Your task to perform on an android device: Add "amazon basics triple a" to the cart on amazon.com Image 0: 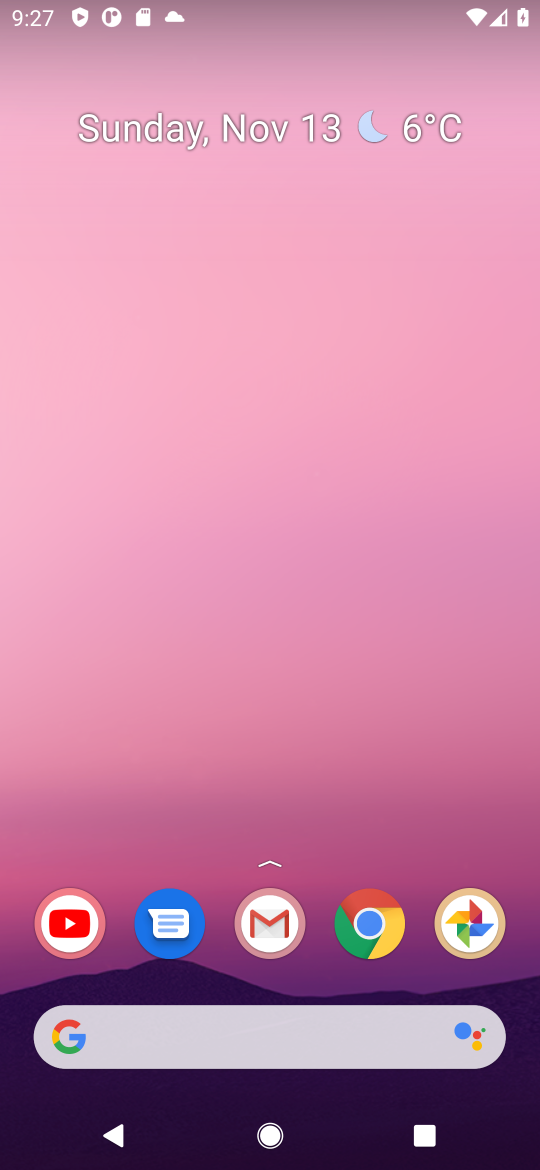
Step 0: click (454, 655)
Your task to perform on an android device: Add "amazon basics triple a" to the cart on amazon.com Image 1: 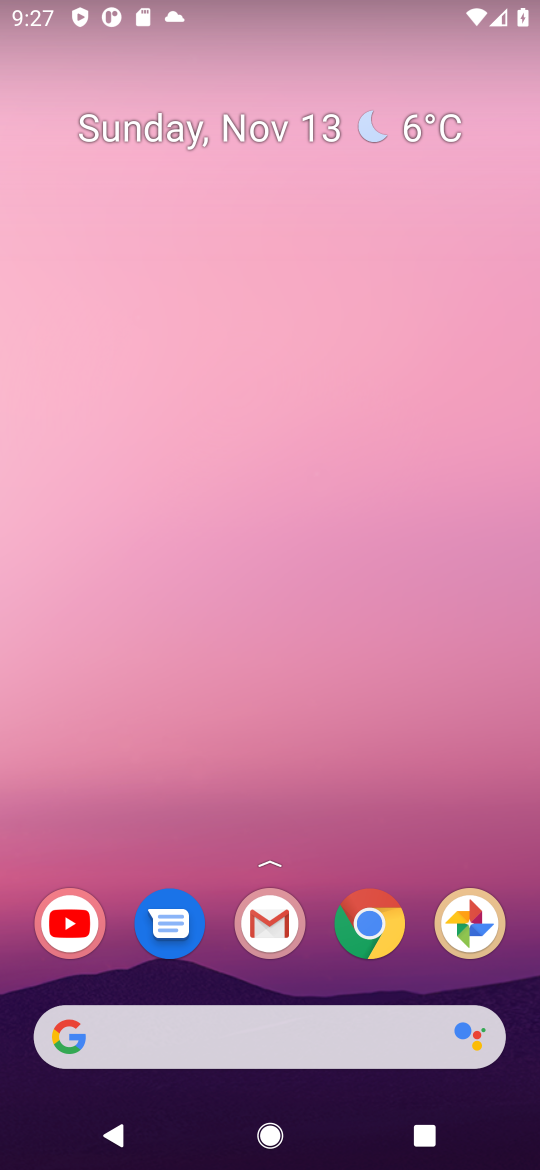
Step 1: click (414, 712)
Your task to perform on an android device: Add "amazon basics triple a" to the cart on amazon.com Image 2: 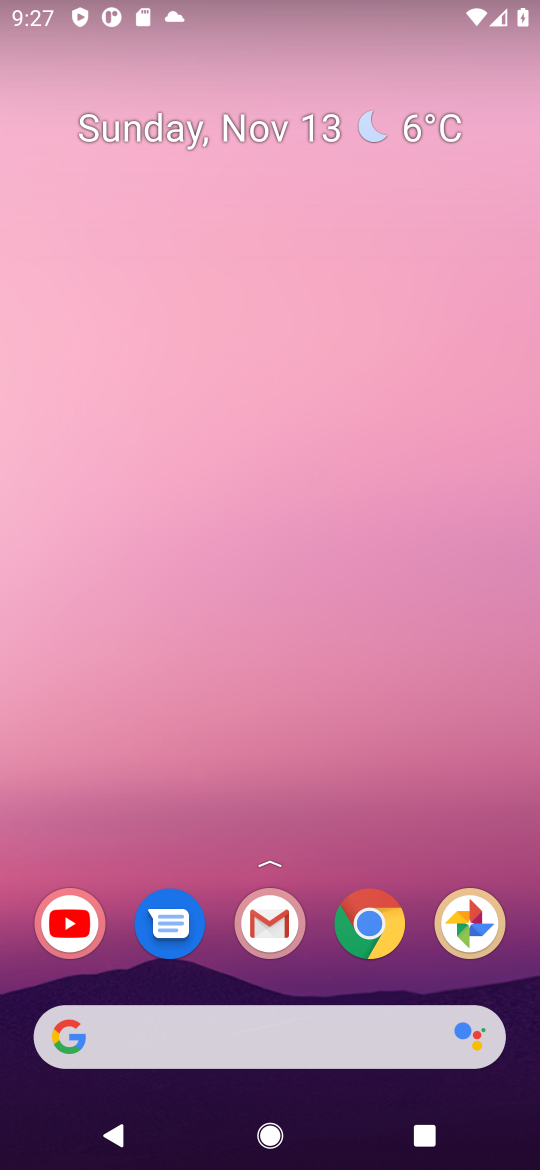
Step 2: click (368, 939)
Your task to perform on an android device: Add "amazon basics triple a" to the cart on amazon.com Image 3: 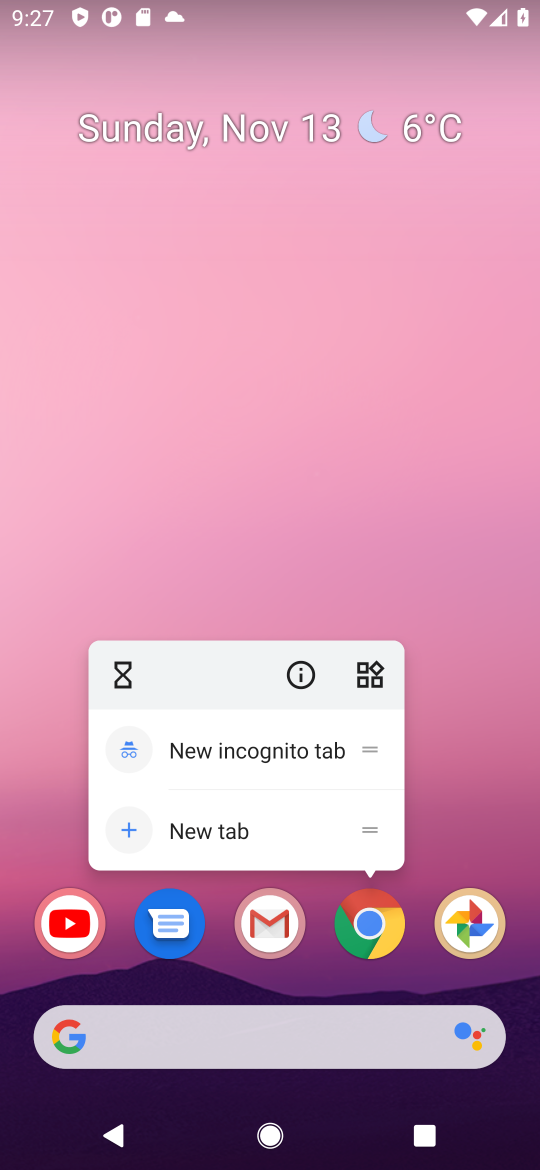
Step 3: click (368, 939)
Your task to perform on an android device: Add "amazon basics triple a" to the cart on amazon.com Image 4: 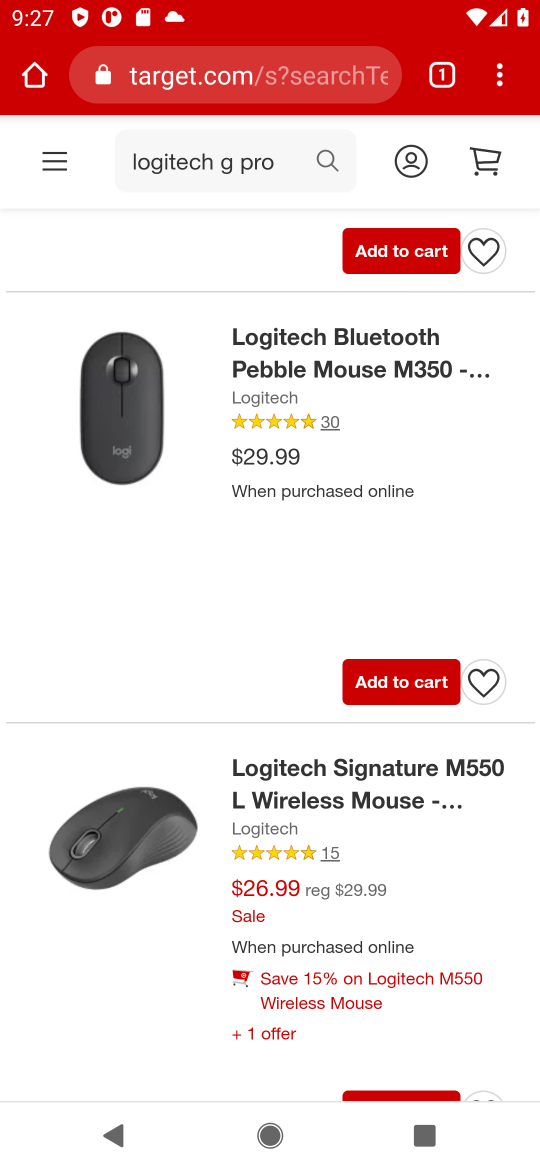
Step 4: click (312, 81)
Your task to perform on an android device: Add "amazon basics triple a" to the cart on amazon.com Image 5: 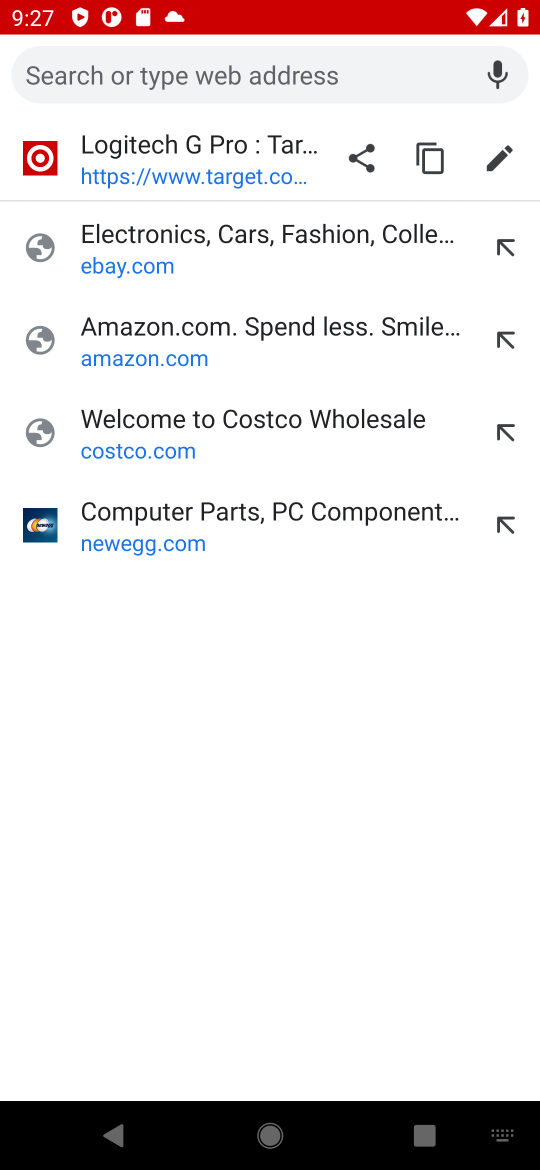
Step 5: click (270, 330)
Your task to perform on an android device: Add "amazon basics triple a" to the cart on amazon.com Image 6: 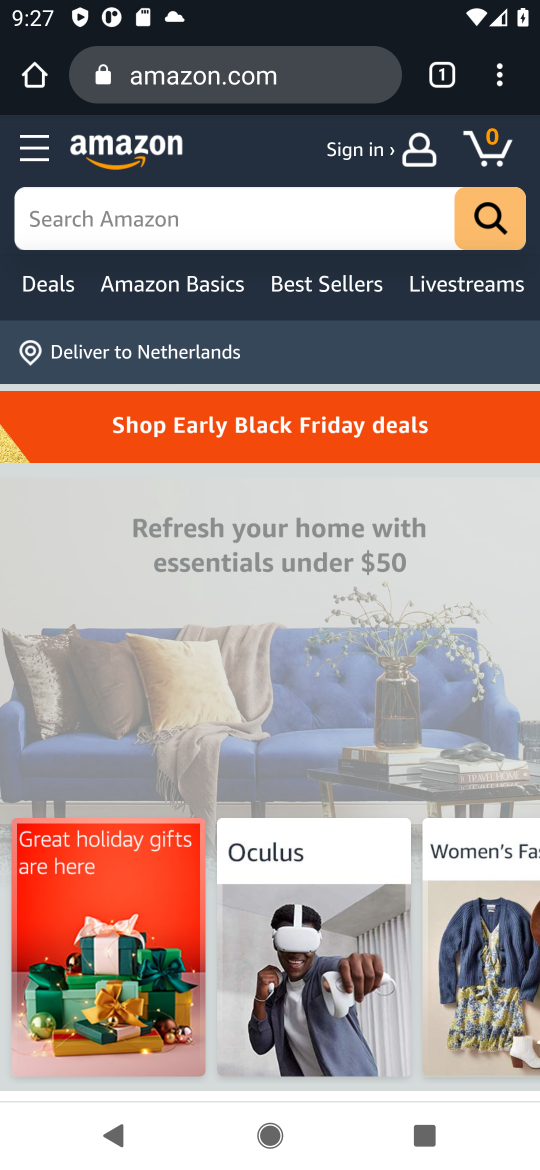
Step 6: click (393, 215)
Your task to perform on an android device: Add "amazon basics triple a" to the cart on amazon.com Image 7: 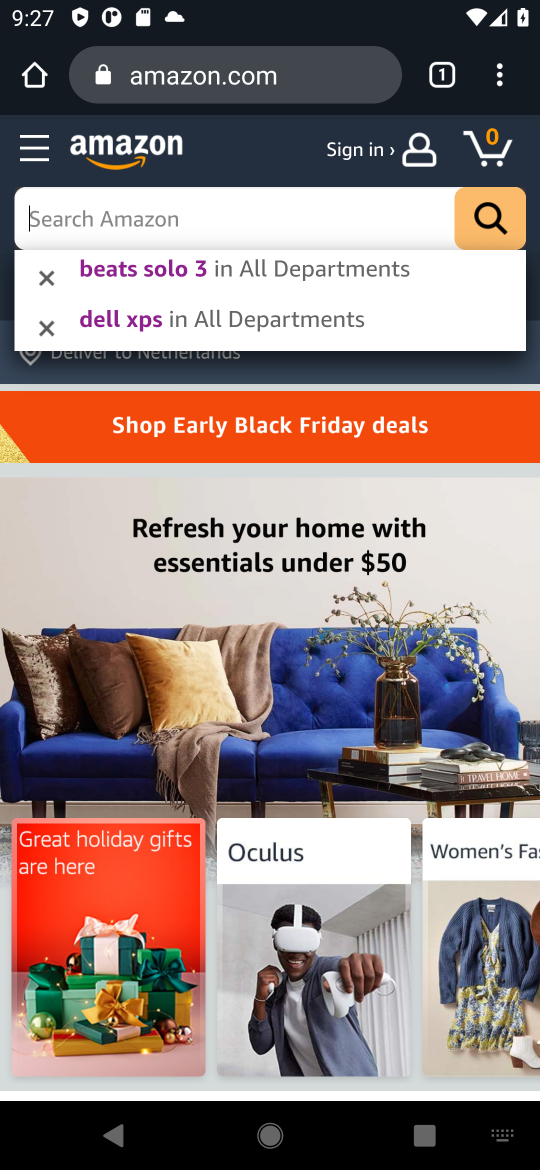
Step 7: press enter
Your task to perform on an android device: Add "amazon basics triple a" to the cart on amazon.com Image 8: 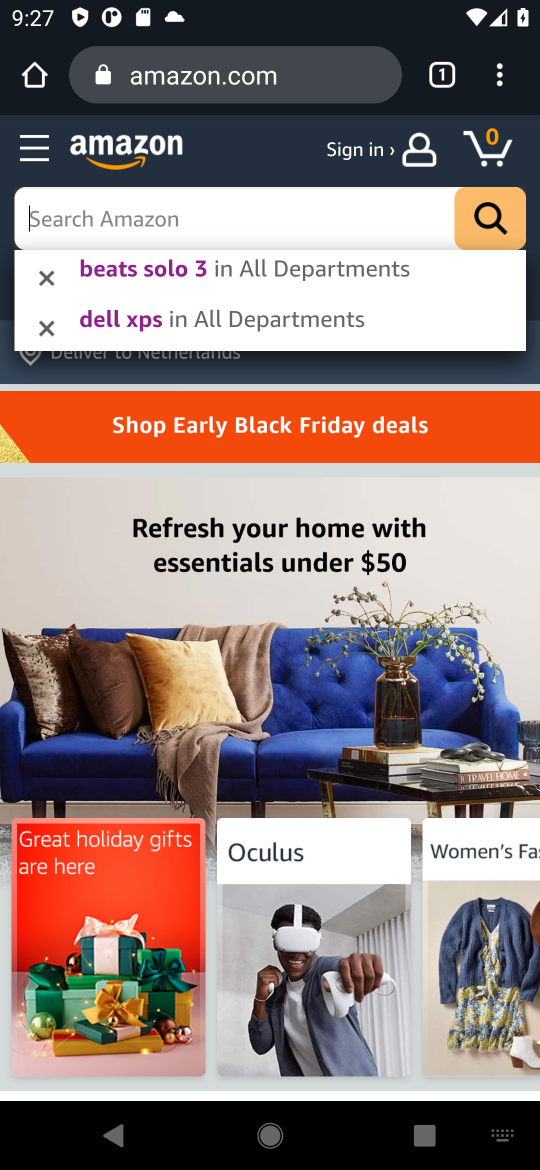
Step 8: type "amazon basics triple a"
Your task to perform on an android device: Add "amazon basics triple a" to the cart on amazon.com Image 9: 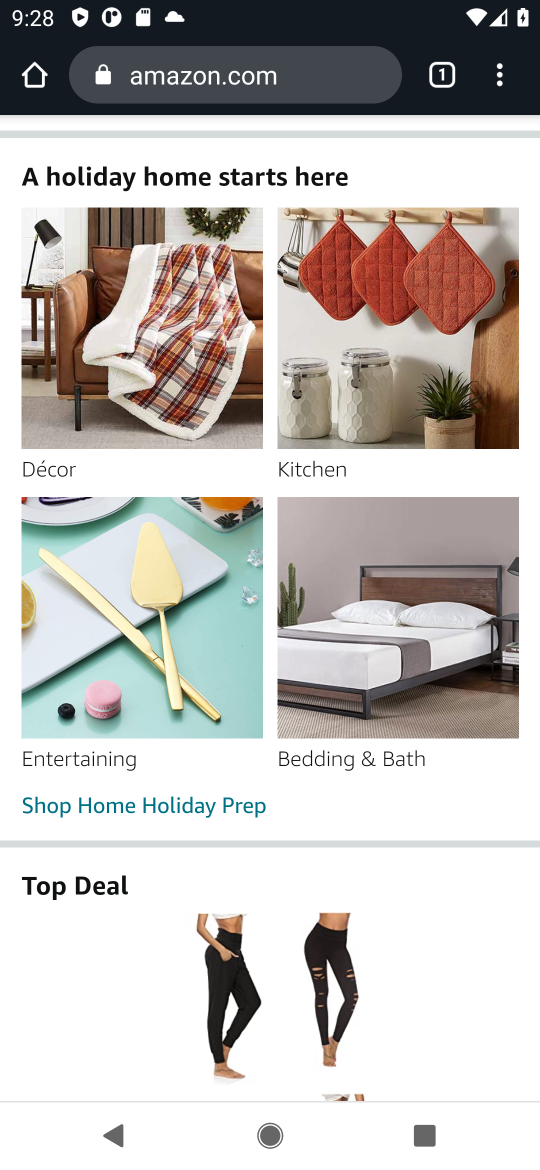
Step 9: drag from (355, 402) to (361, 959)
Your task to perform on an android device: Add "amazon basics triple a" to the cart on amazon.com Image 10: 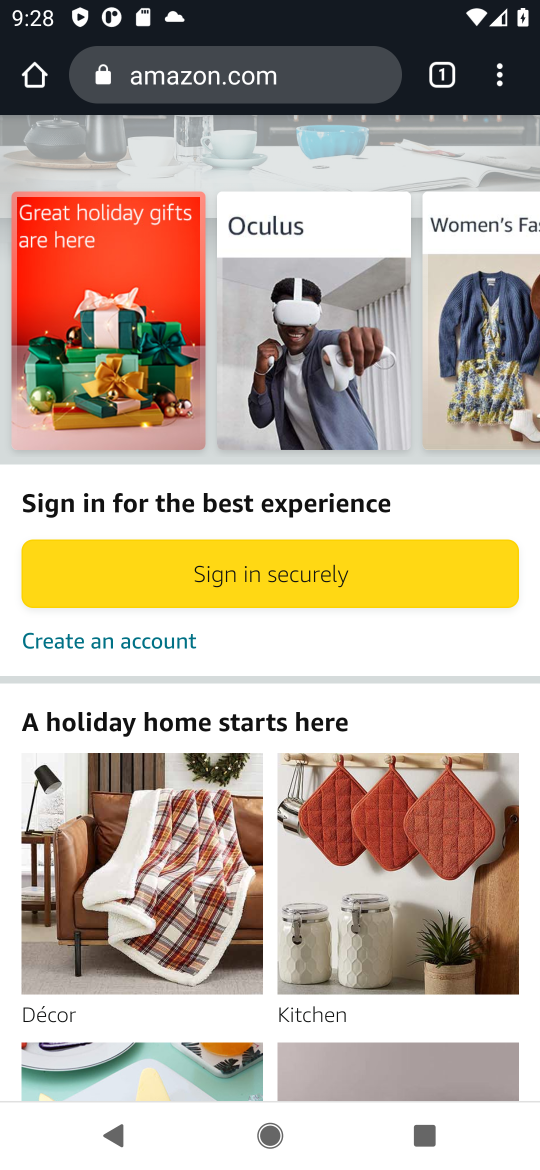
Step 10: click (320, 563)
Your task to perform on an android device: Add "amazon basics triple a" to the cart on amazon.com Image 11: 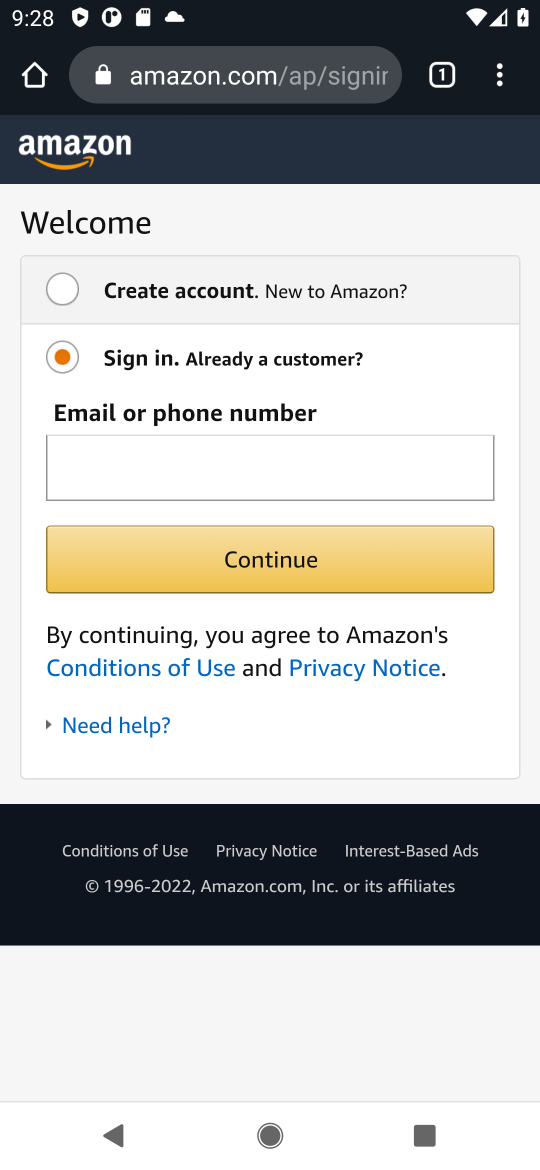
Step 11: press back button
Your task to perform on an android device: Add "amazon basics triple a" to the cart on amazon.com Image 12: 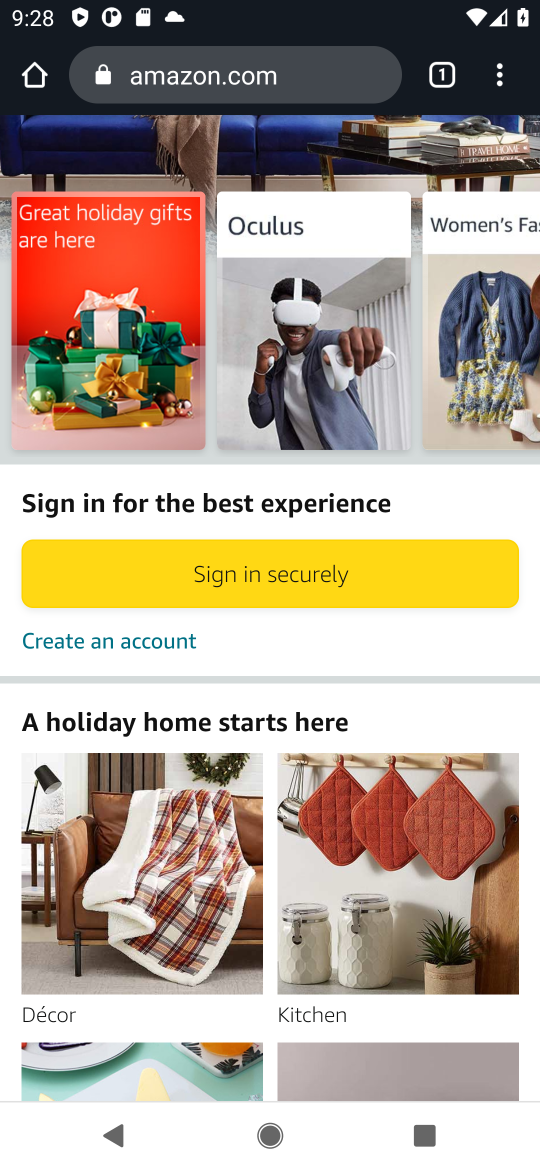
Step 12: drag from (312, 256) to (349, 824)
Your task to perform on an android device: Add "amazon basics triple a" to the cart on amazon.com Image 13: 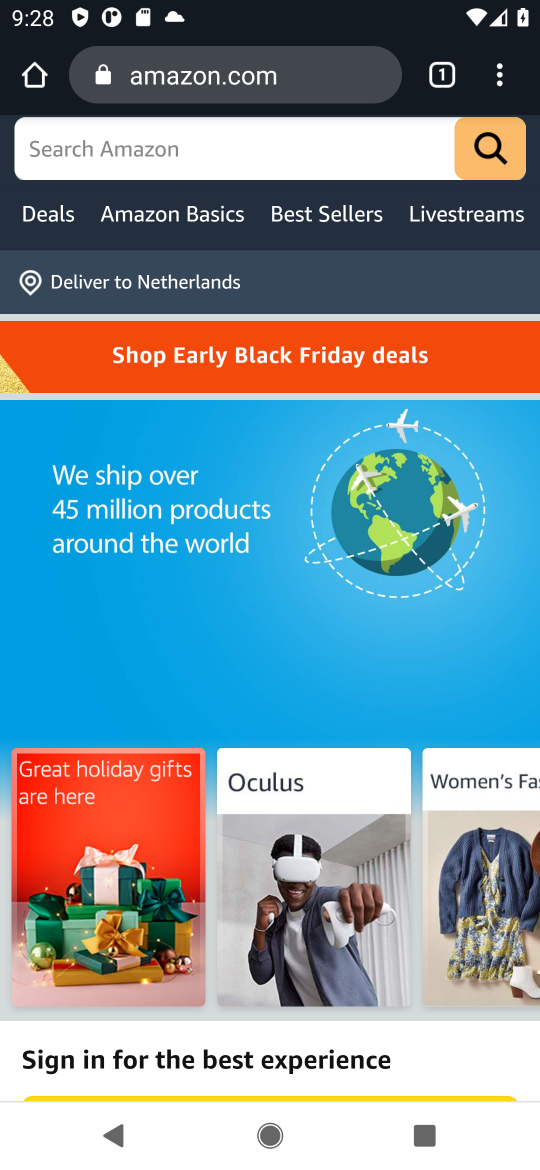
Step 13: drag from (399, 532) to (482, 907)
Your task to perform on an android device: Add "amazon basics triple a" to the cart on amazon.com Image 14: 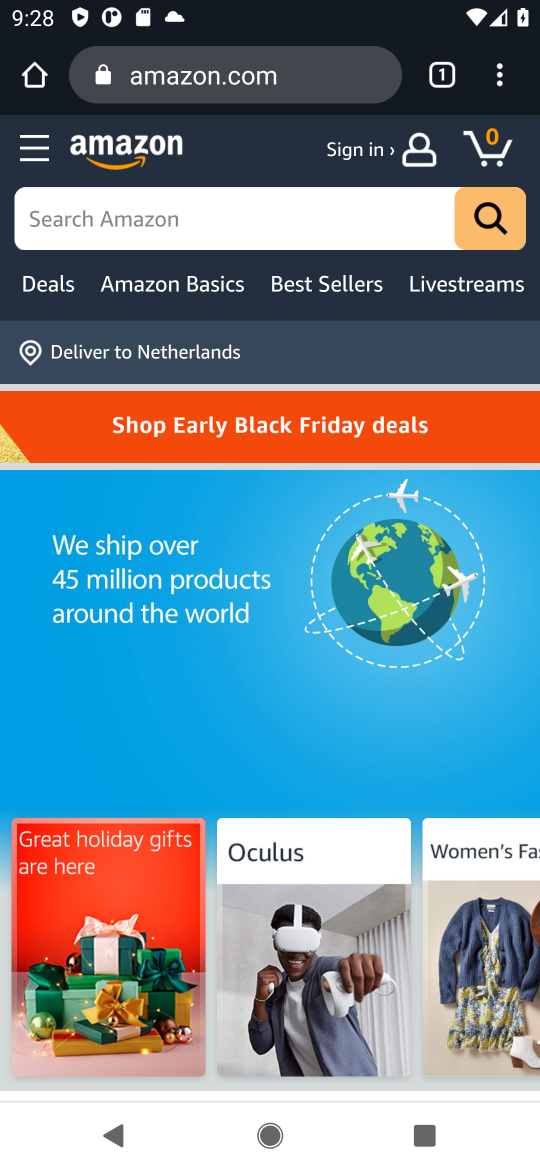
Step 14: click (309, 222)
Your task to perform on an android device: Add "amazon basics triple a" to the cart on amazon.com Image 15: 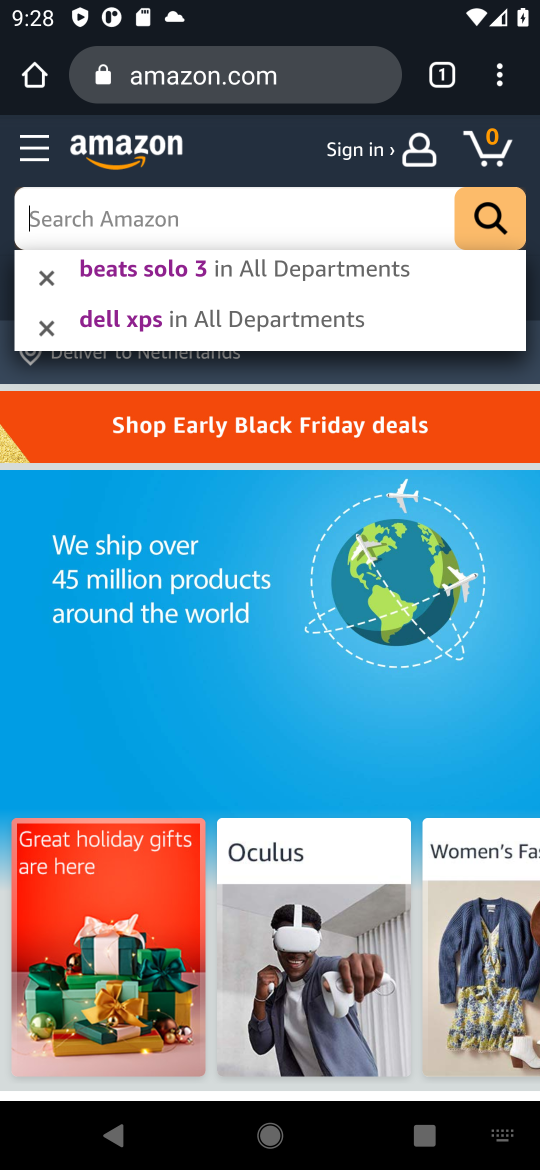
Step 15: type "amazon basics triple a"
Your task to perform on an android device: Add "amazon basics triple a" to the cart on amazon.com Image 16: 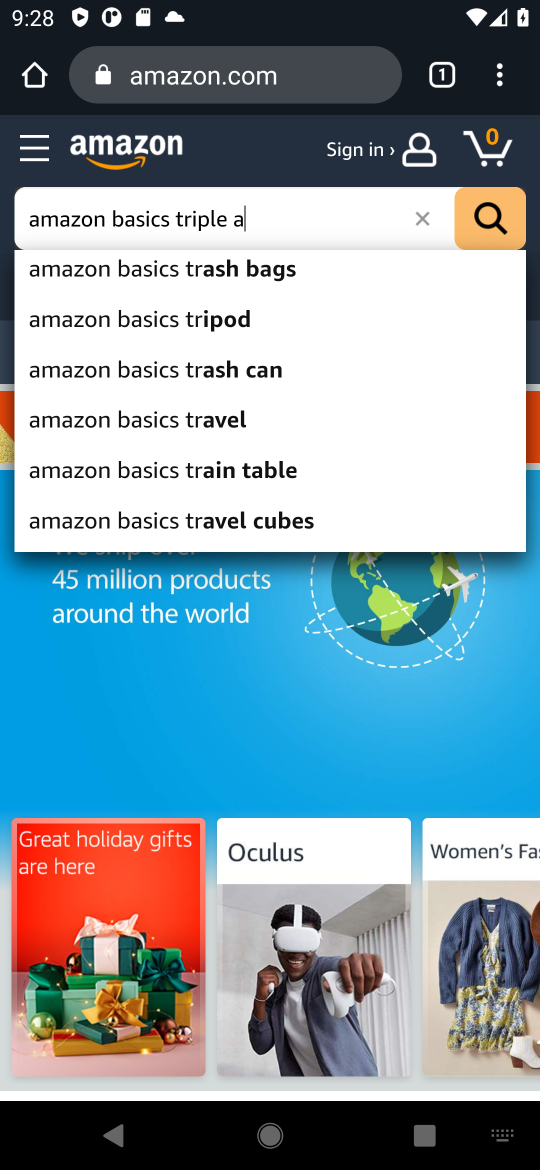
Step 16: press enter
Your task to perform on an android device: Add "amazon basics triple a" to the cart on amazon.com Image 17: 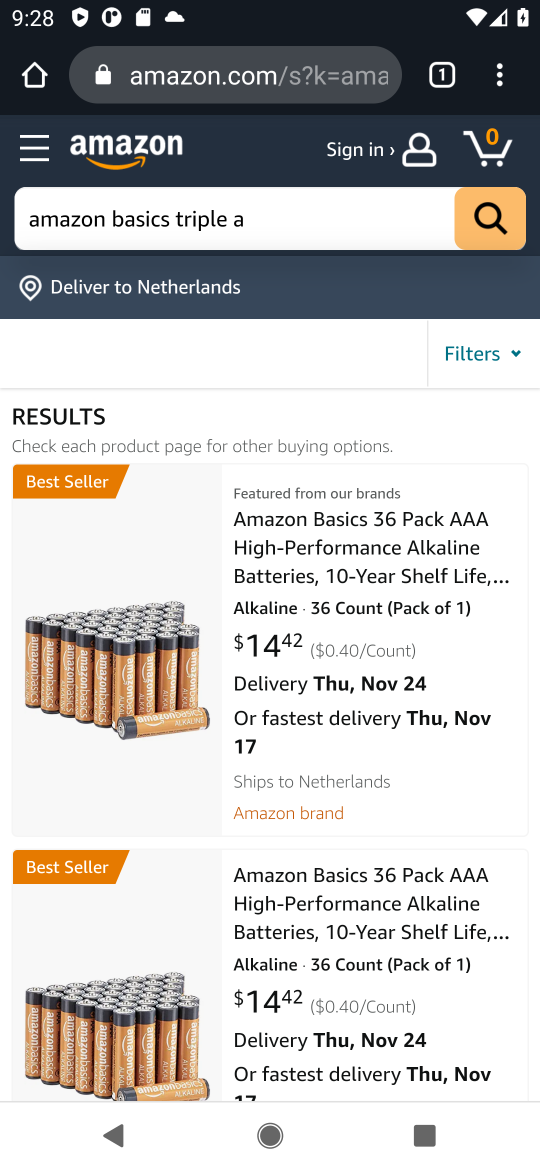
Step 17: click (148, 633)
Your task to perform on an android device: Add "amazon basics triple a" to the cart on amazon.com Image 18: 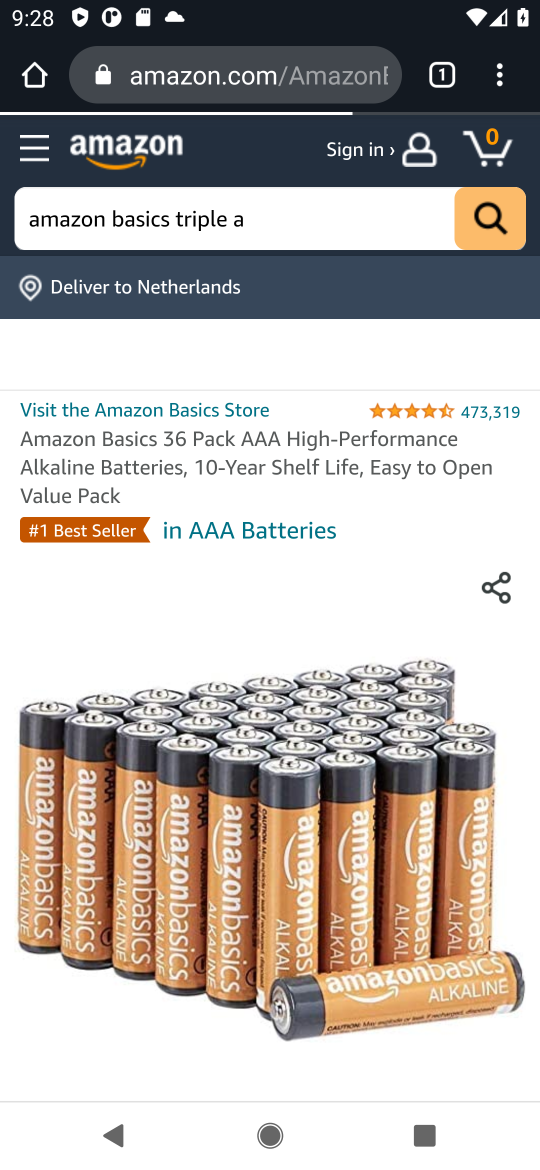
Step 18: drag from (381, 774) to (425, 329)
Your task to perform on an android device: Add "amazon basics triple a" to the cart on amazon.com Image 19: 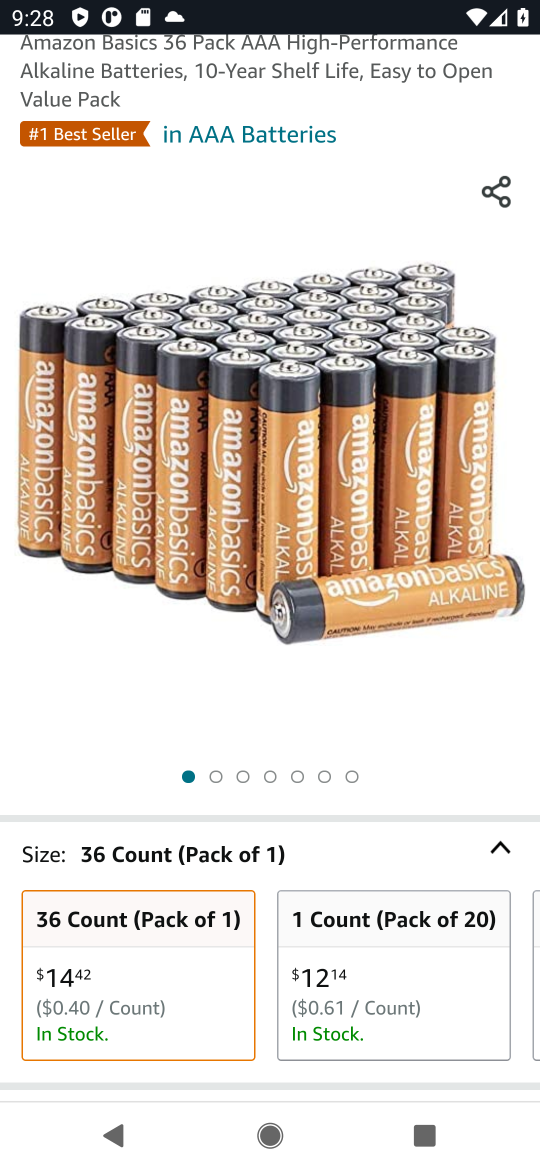
Step 19: drag from (335, 680) to (397, 321)
Your task to perform on an android device: Add "amazon basics triple a" to the cart on amazon.com Image 20: 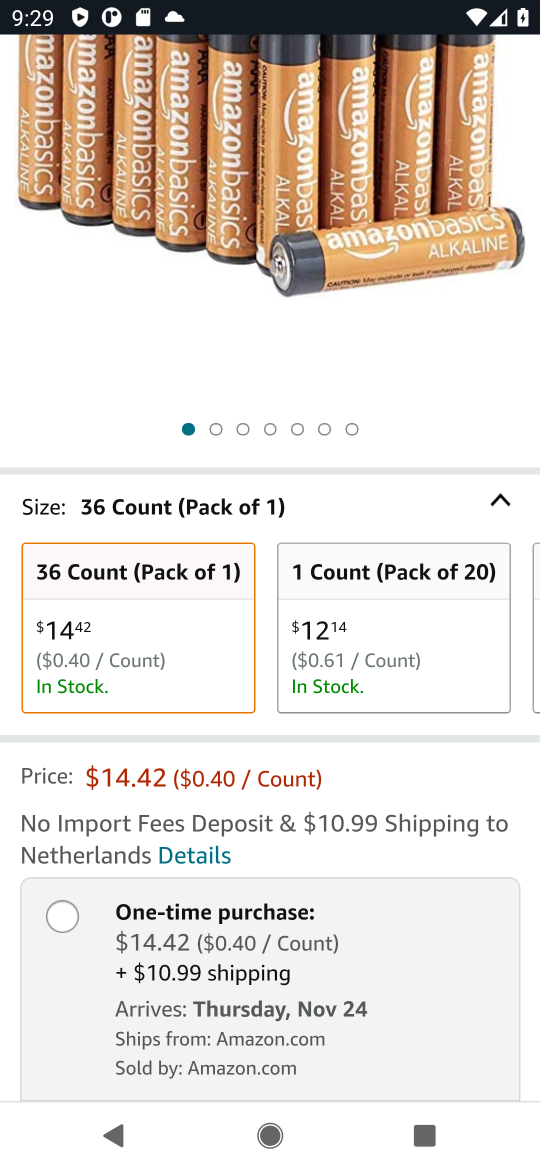
Step 20: drag from (398, 865) to (505, 439)
Your task to perform on an android device: Add "amazon basics triple a" to the cart on amazon.com Image 21: 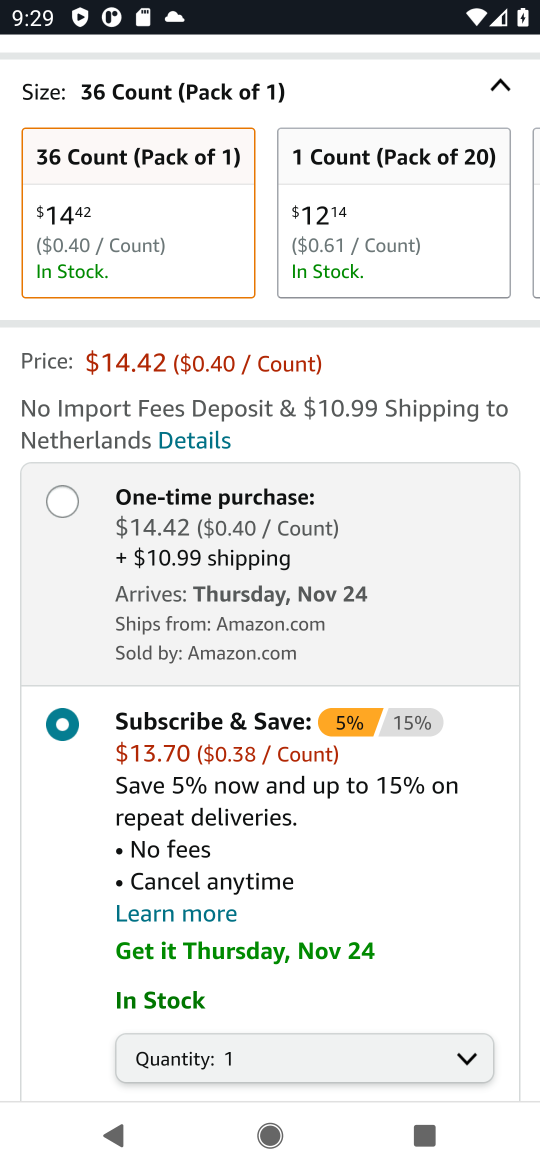
Step 21: drag from (425, 878) to (432, 547)
Your task to perform on an android device: Add "amazon basics triple a" to the cart on amazon.com Image 22: 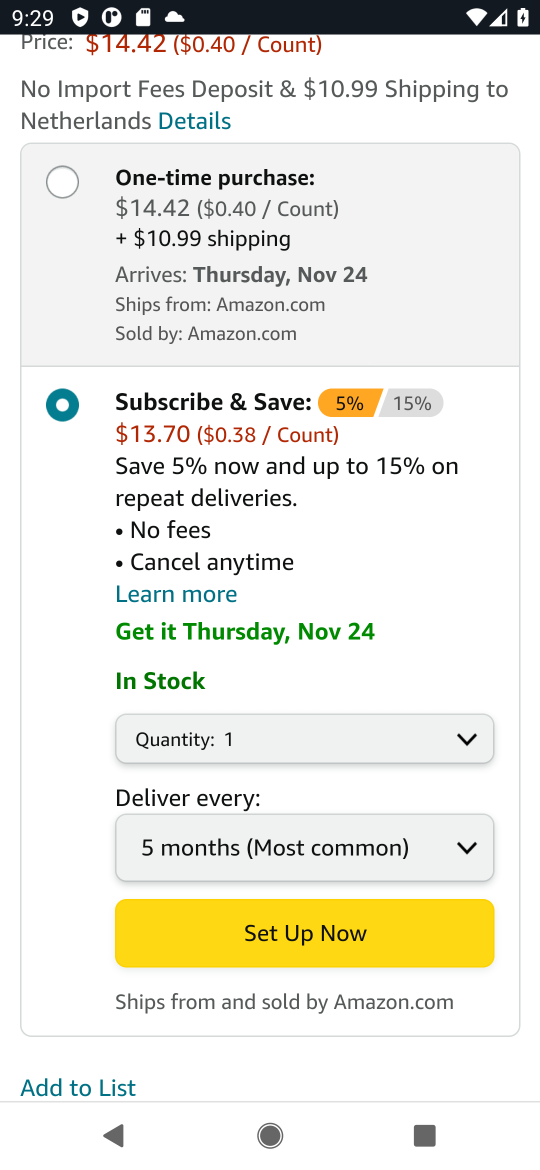
Step 22: press back button
Your task to perform on an android device: Add "amazon basics triple a" to the cart on amazon.com Image 23: 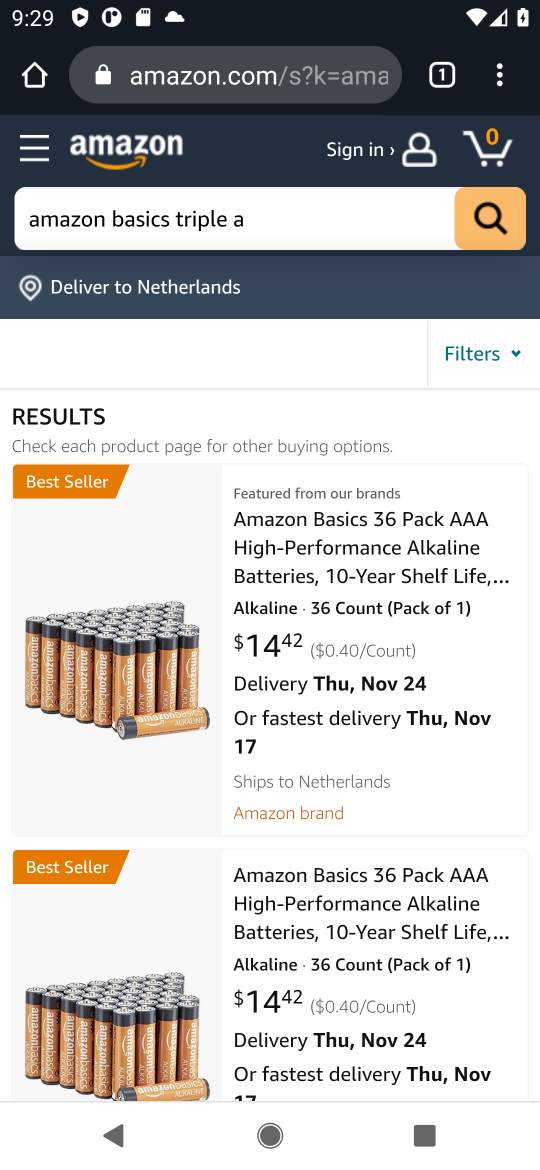
Step 23: click (89, 954)
Your task to perform on an android device: Add "amazon basics triple a" to the cart on amazon.com Image 24: 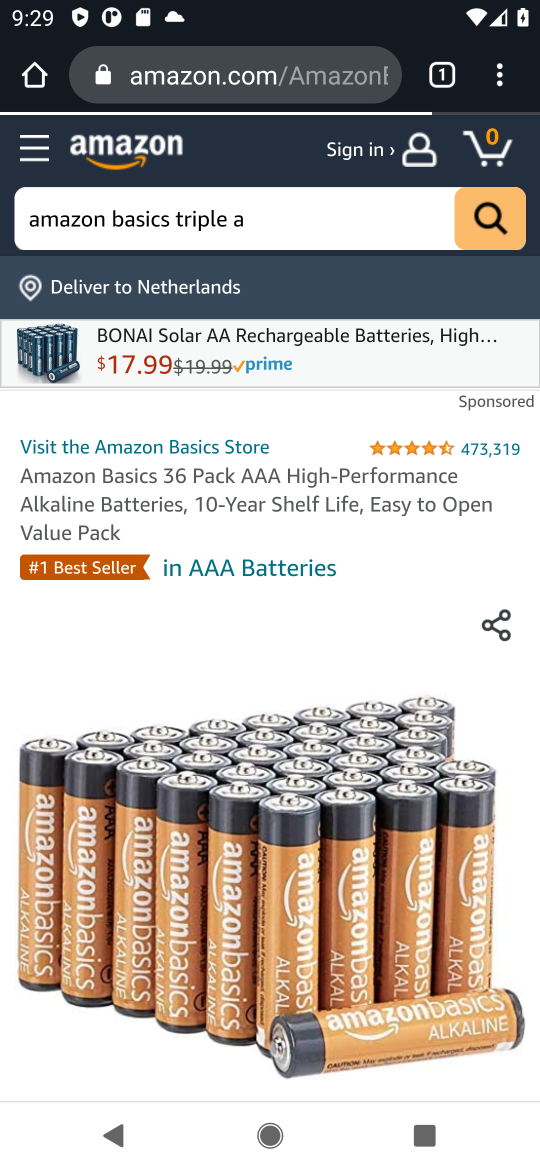
Step 24: drag from (352, 875) to (538, 279)
Your task to perform on an android device: Add "amazon basics triple a" to the cart on amazon.com Image 25: 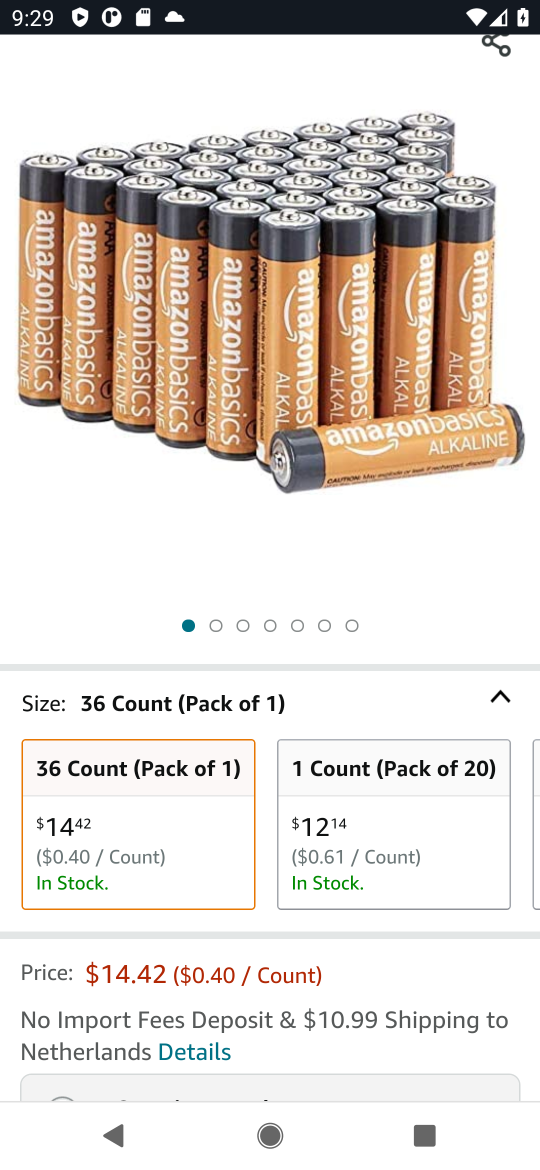
Step 25: drag from (387, 892) to (468, 240)
Your task to perform on an android device: Add "amazon basics triple a" to the cart on amazon.com Image 26: 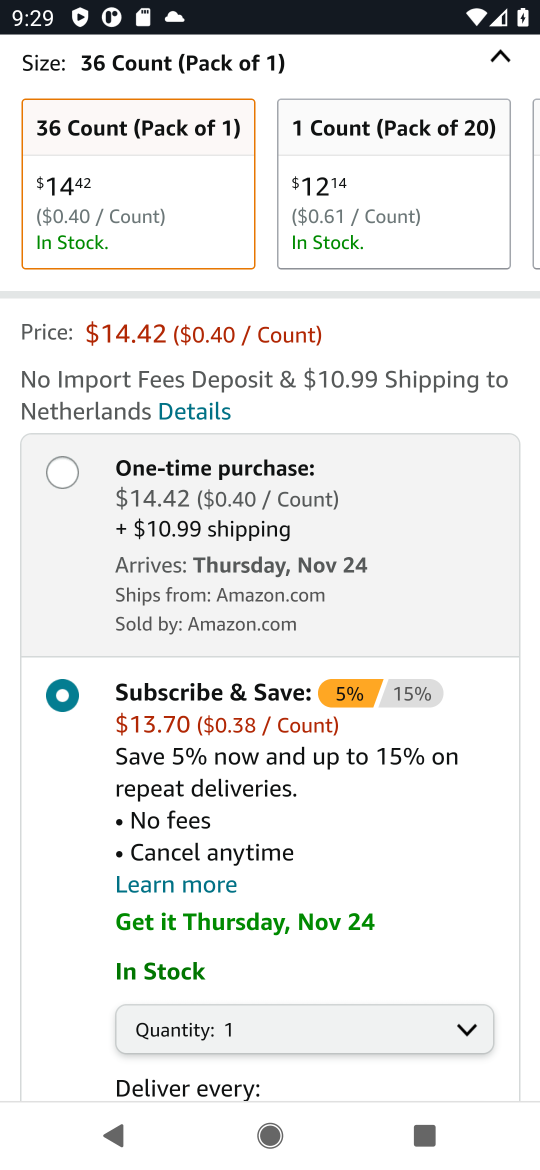
Step 26: drag from (424, 799) to (529, 281)
Your task to perform on an android device: Add "amazon basics triple a" to the cart on amazon.com Image 27: 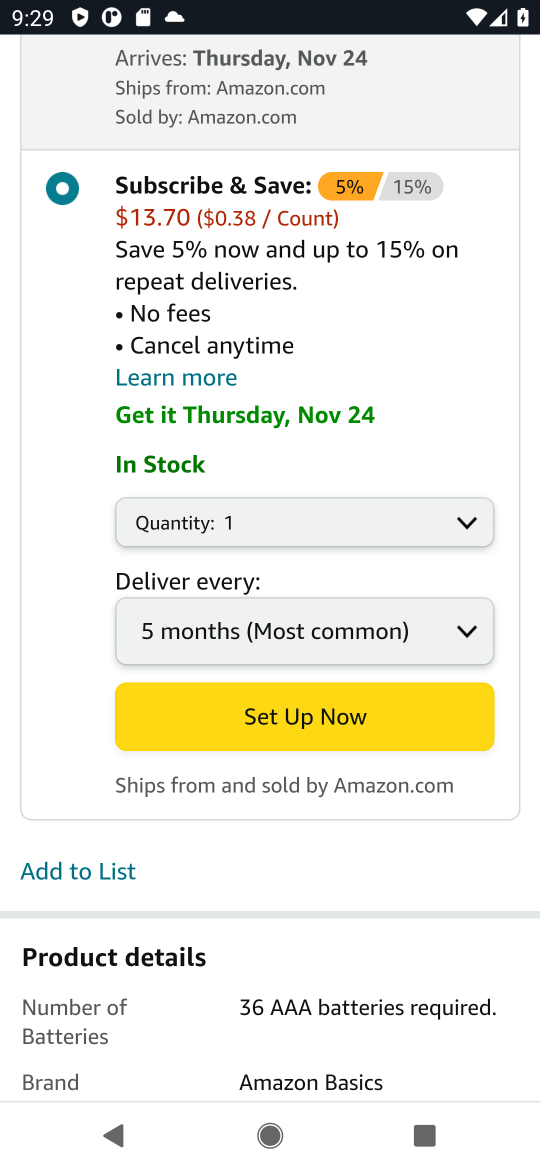
Step 27: press back button
Your task to perform on an android device: Add "amazon basics triple a" to the cart on amazon.com Image 28: 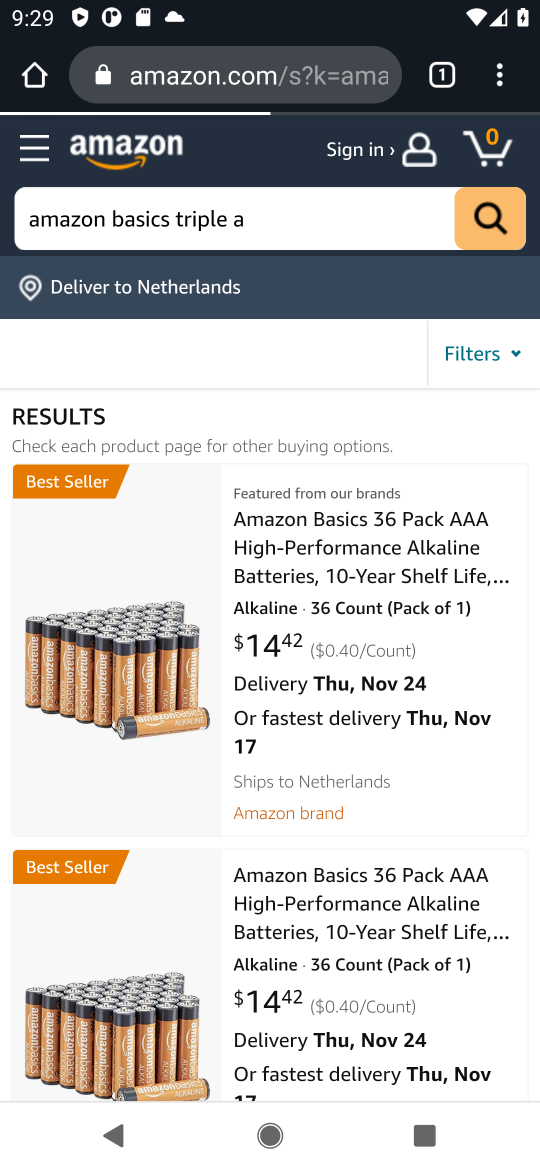
Step 28: drag from (306, 917) to (403, 299)
Your task to perform on an android device: Add "amazon basics triple a" to the cart on amazon.com Image 29: 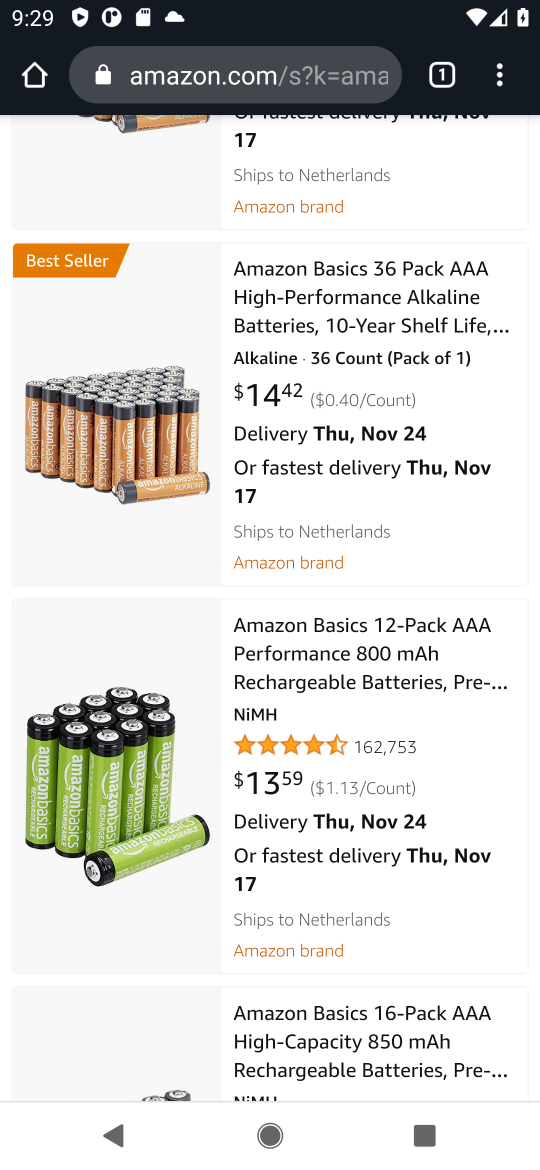
Step 29: click (116, 690)
Your task to perform on an android device: Add "amazon basics triple a" to the cart on amazon.com Image 30: 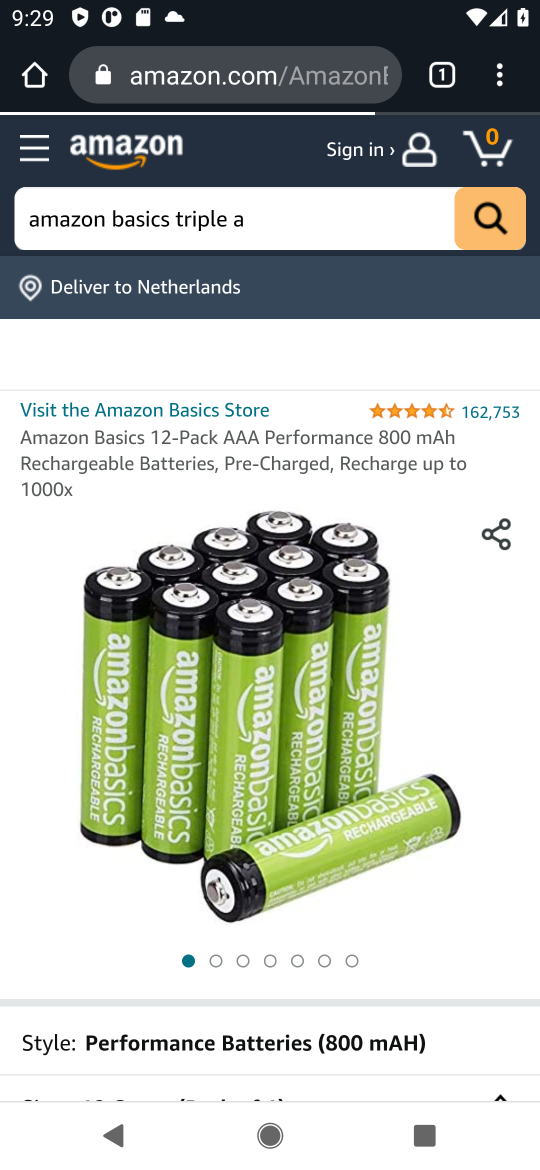
Step 30: drag from (491, 741) to (493, 486)
Your task to perform on an android device: Add "amazon basics triple a" to the cart on amazon.com Image 31: 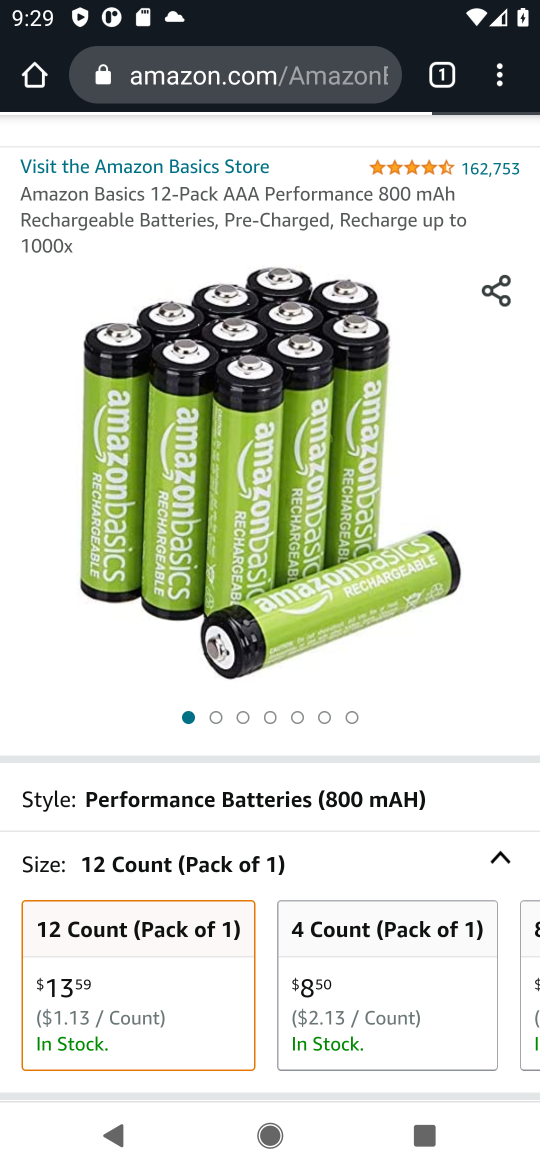
Step 31: drag from (464, 781) to (451, 512)
Your task to perform on an android device: Add "amazon basics triple a" to the cart on amazon.com Image 32: 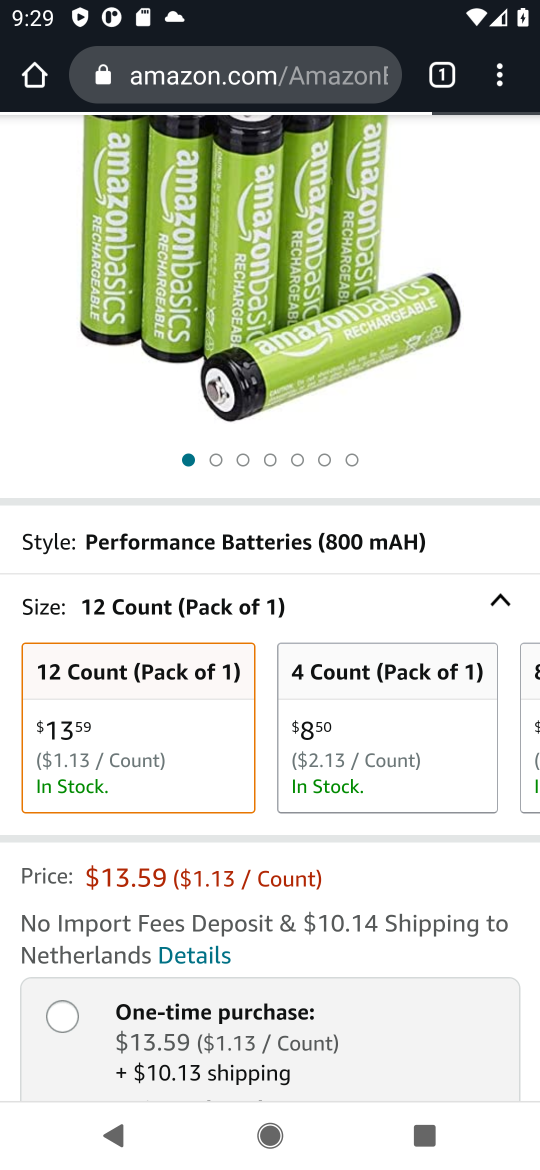
Step 32: drag from (381, 991) to (457, 426)
Your task to perform on an android device: Add "amazon basics triple a" to the cart on amazon.com Image 33: 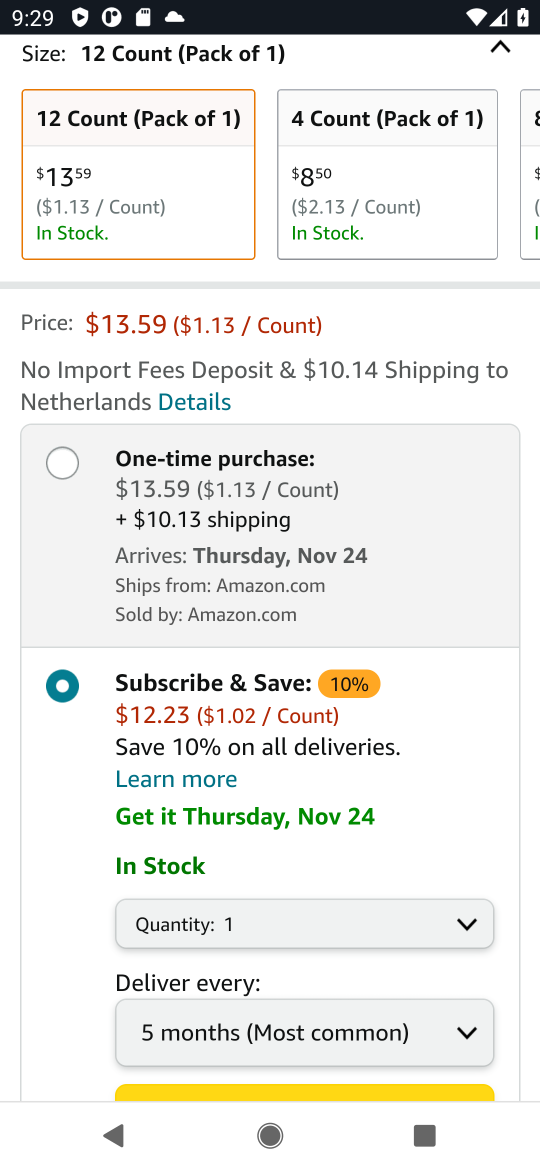
Step 33: drag from (443, 767) to (501, 292)
Your task to perform on an android device: Add "amazon basics triple a" to the cart on amazon.com Image 34: 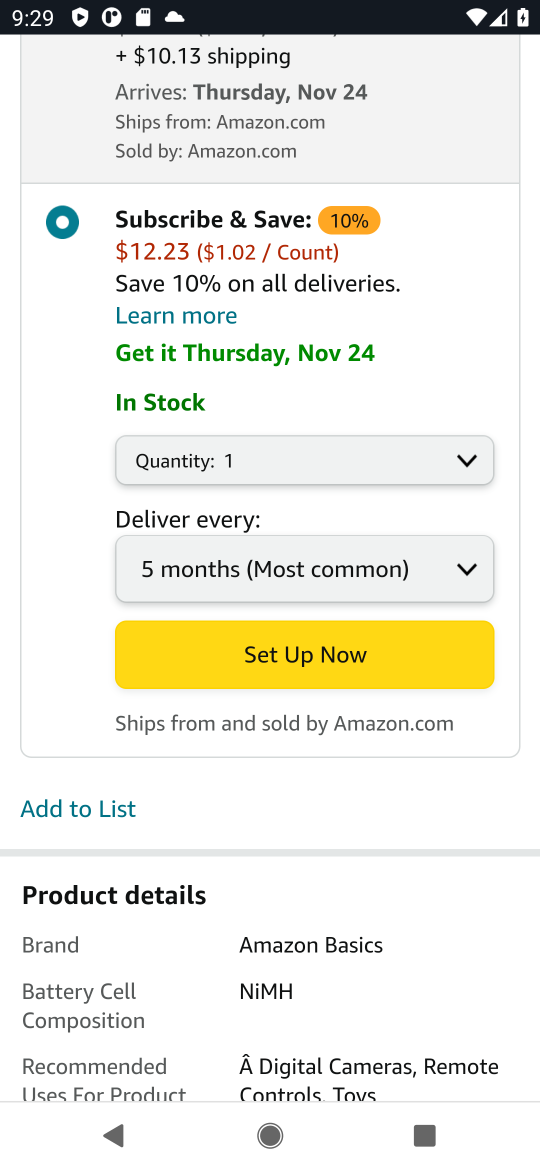
Step 34: drag from (419, 630) to (482, 169)
Your task to perform on an android device: Add "amazon basics triple a" to the cart on amazon.com Image 35: 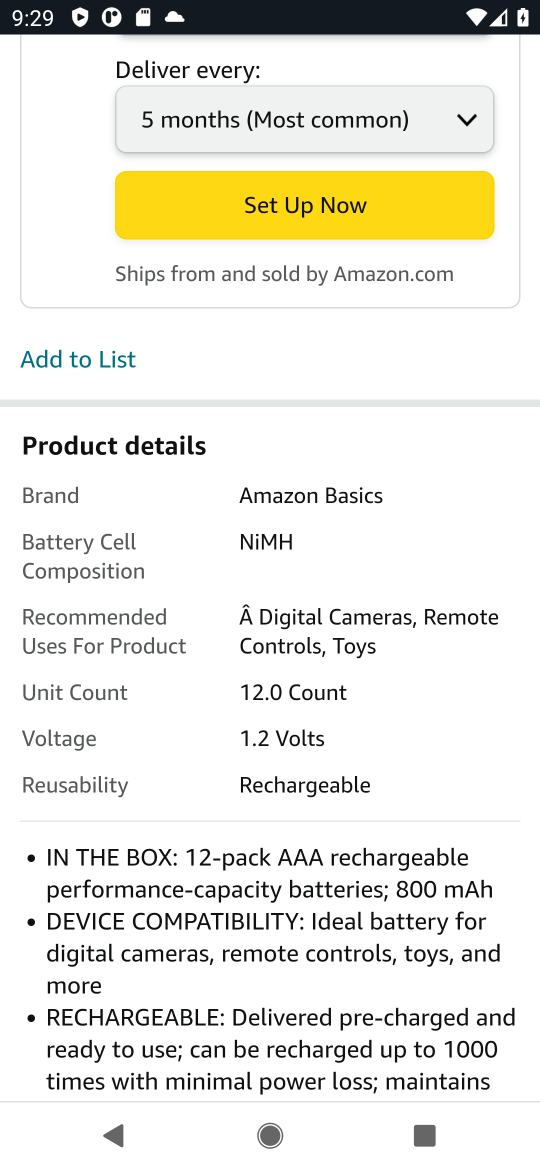
Step 35: drag from (429, 723) to (516, 74)
Your task to perform on an android device: Add "amazon basics triple a" to the cart on amazon.com Image 36: 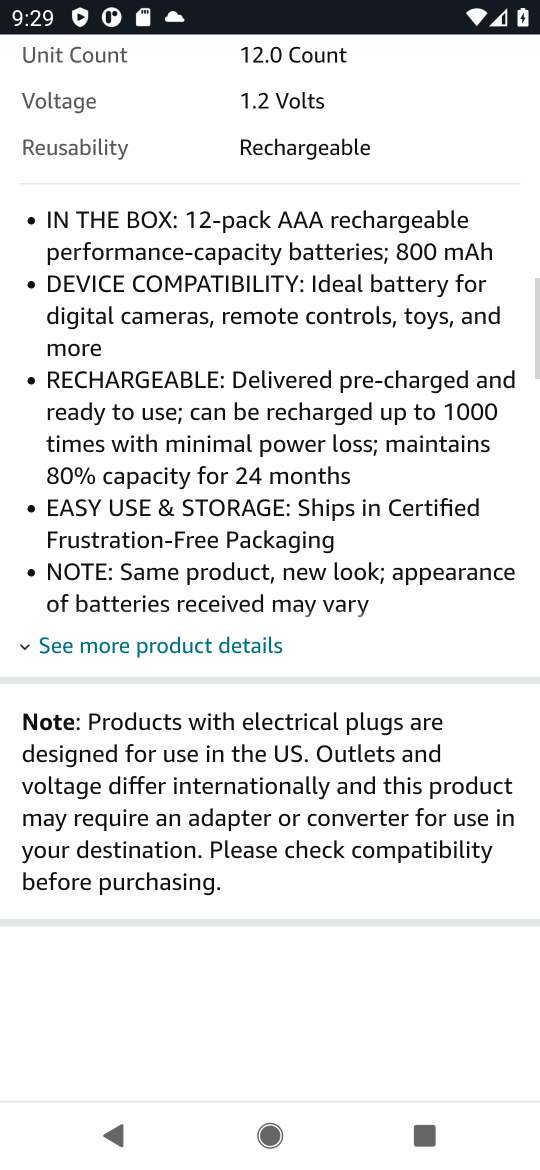
Step 36: drag from (419, 740) to (528, 170)
Your task to perform on an android device: Add "amazon basics triple a" to the cart on amazon.com Image 37: 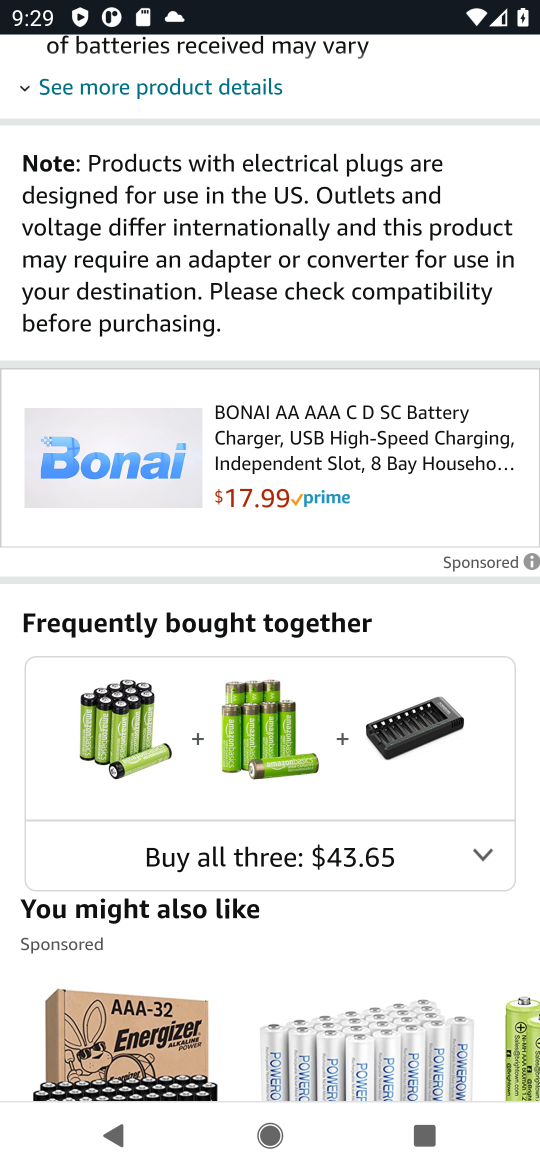
Step 37: press back button
Your task to perform on an android device: Add "amazon basics triple a" to the cart on amazon.com Image 38: 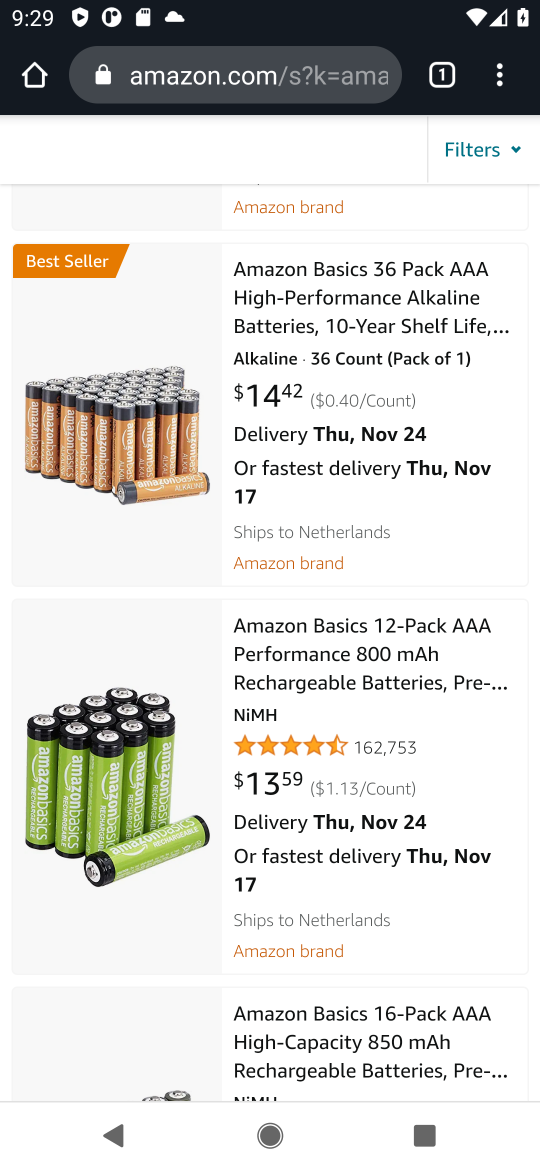
Step 38: drag from (426, 747) to (517, 203)
Your task to perform on an android device: Add "amazon basics triple a" to the cart on amazon.com Image 39: 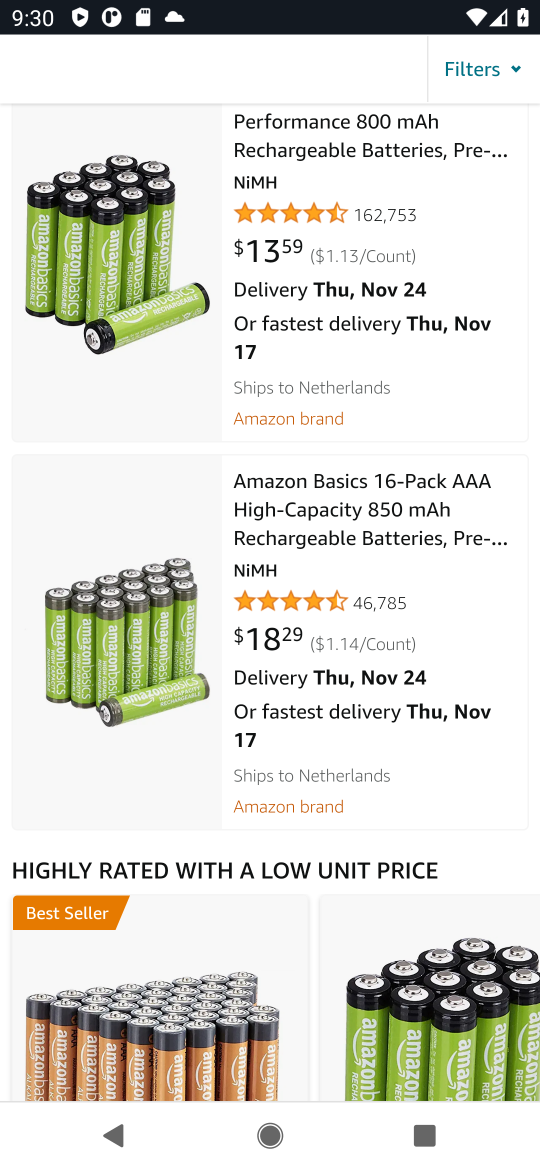
Step 39: click (103, 584)
Your task to perform on an android device: Add "amazon basics triple a" to the cart on amazon.com Image 40: 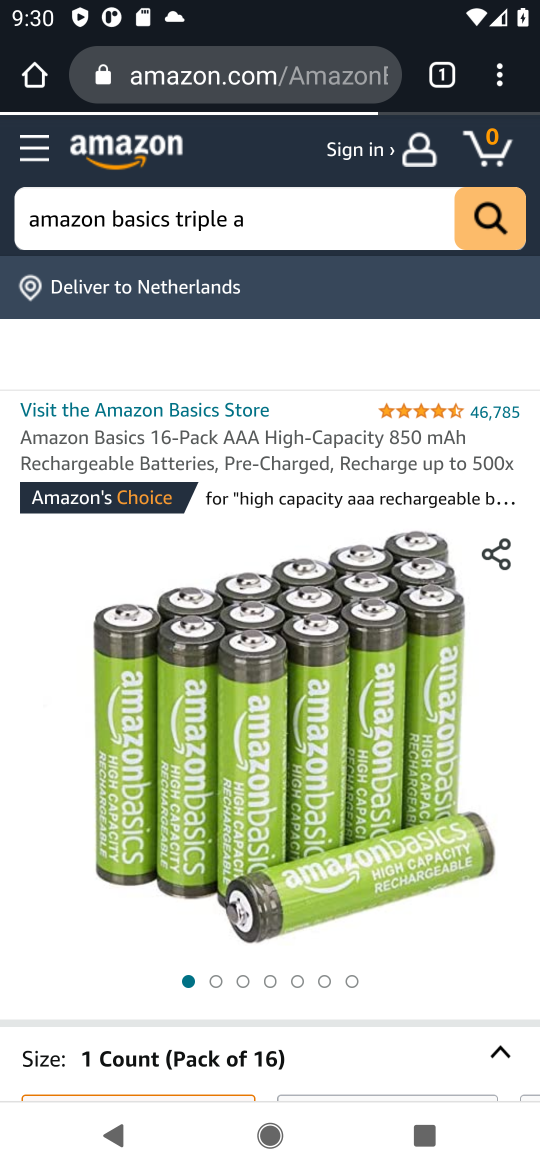
Step 40: drag from (391, 634) to (441, 220)
Your task to perform on an android device: Add "amazon basics triple a" to the cart on amazon.com Image 41: 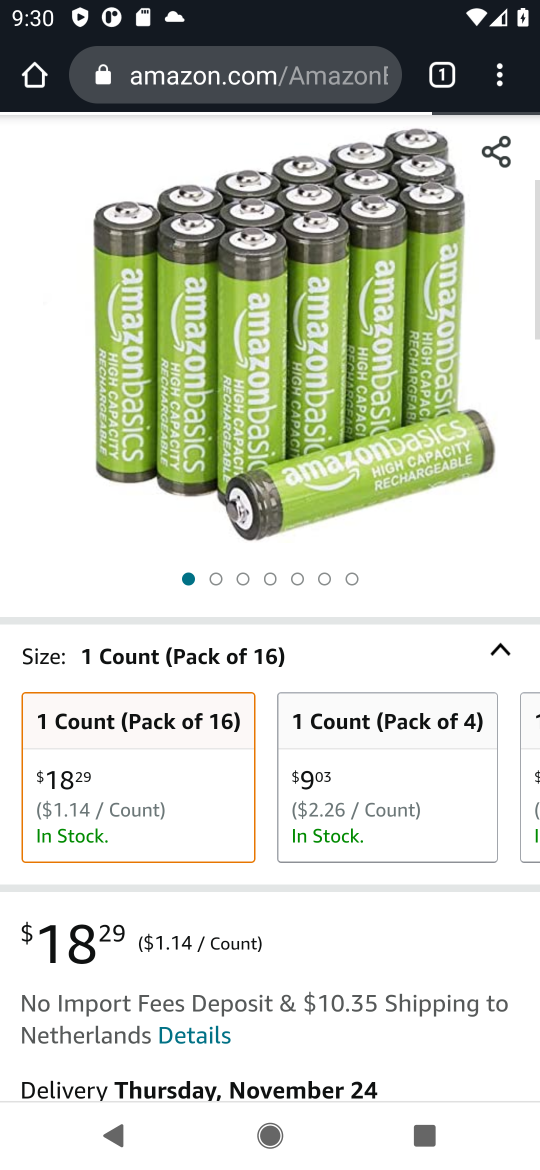
Step 41: drag from (407, 753) to (472, 203)
Your task to perform on an android device: Add "amazon basics triple a" to the cart on amazon.com Image 42: 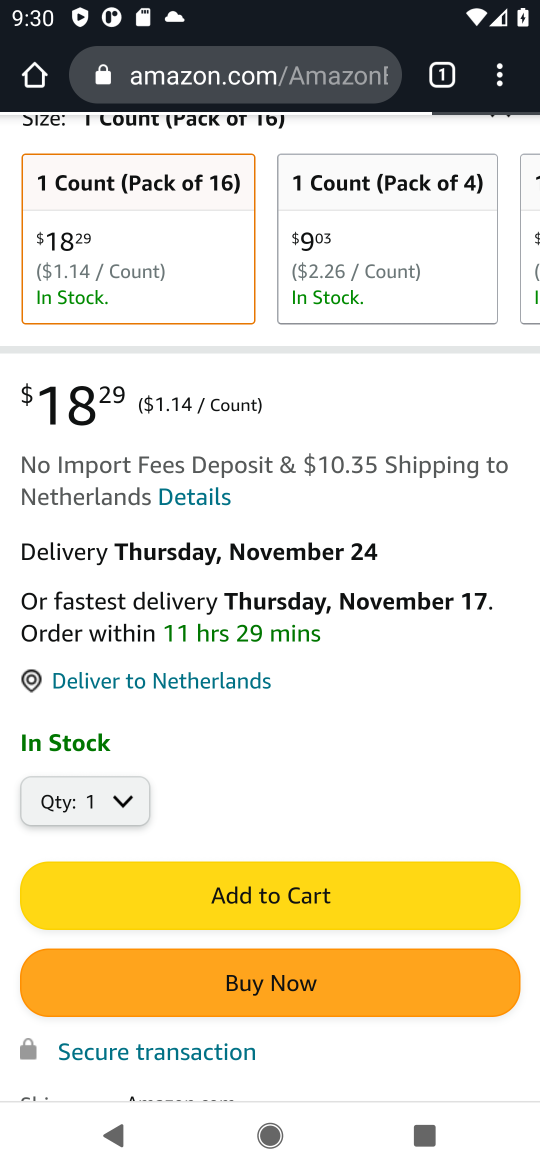
Step 42: click (348, 895)
Your task to perform on an android device: Add "amazon basics triple a" to the cart on amazon.com Image 43: 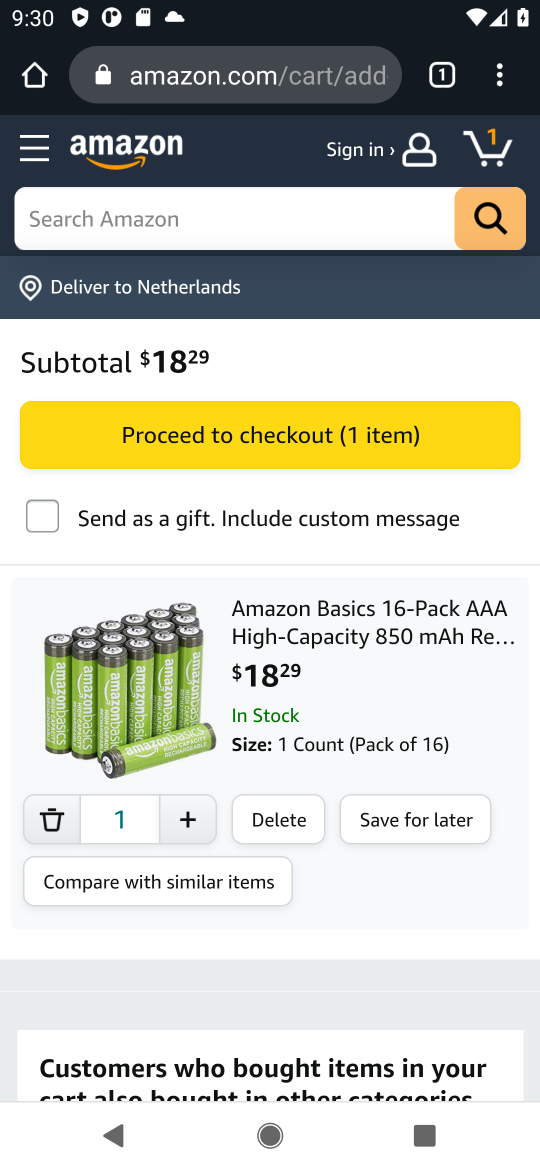
Step 43: task complete